Your task to perform on an android device: empty trash in google photos Image 0: 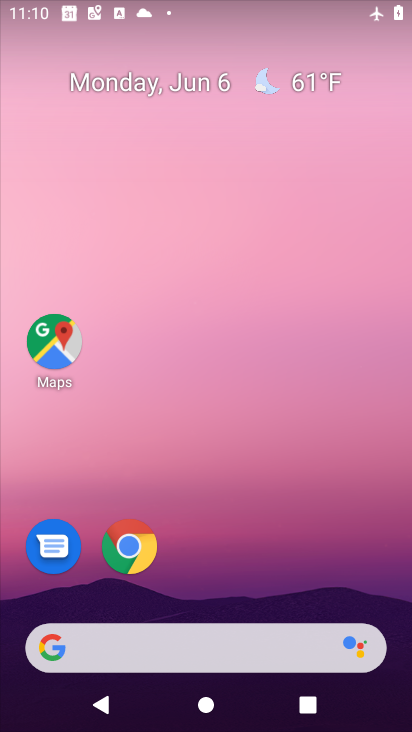
Step 0: drag from (398, 611) to (363, 81)
Your task to perform on an android device: empty trash in google photos Image 1: 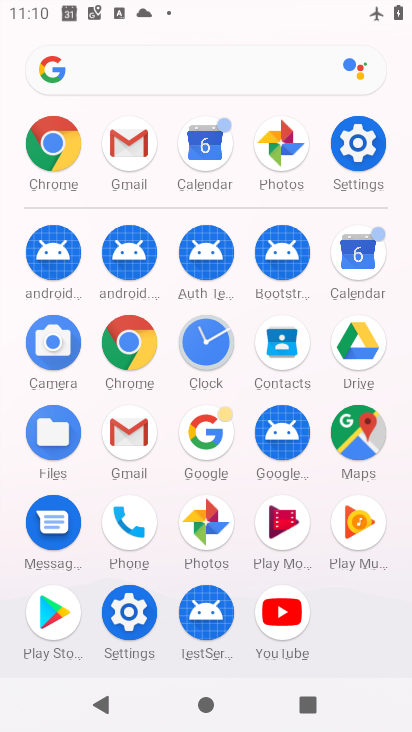
Step 1: click (203, 522)
Your task to perform on an android device: empty trash in google photos Image 2: 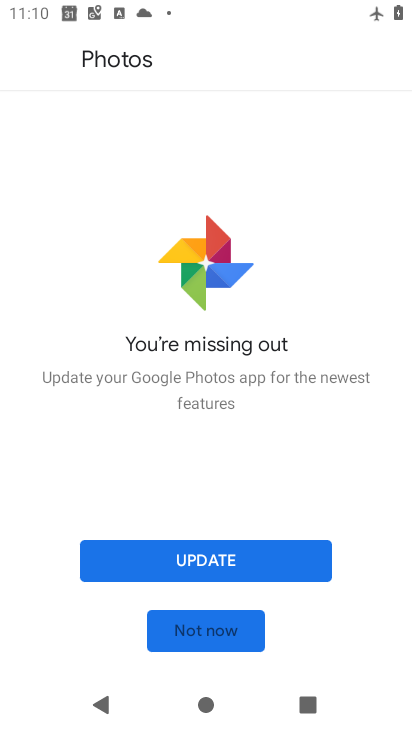
Step 2: click (197, 564)
Your task to perform on an android device: empty trash in google photos Image 3: 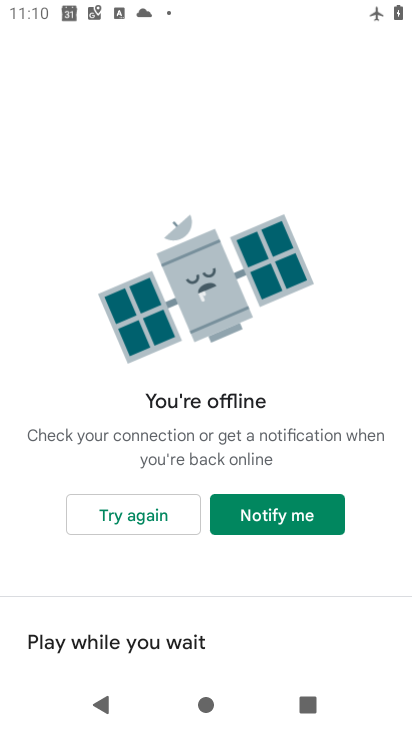
Step 3: click (138, 515)
Your task to perform on an android device: empty trash in google photos Image 4: 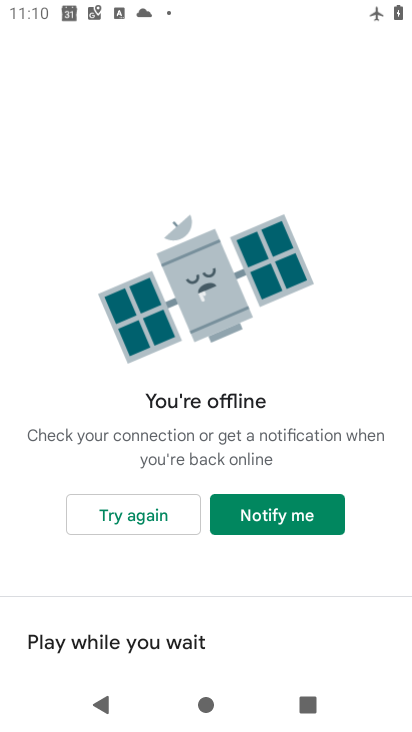
Step 4: task complete